Your task to perform on an android device: turn off location Image 0: 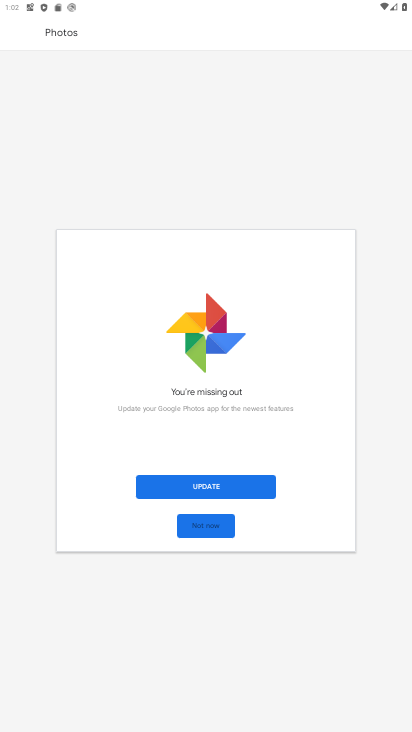
Step 0: press home button
Your task to perform on an android device: turn off location Image 1: 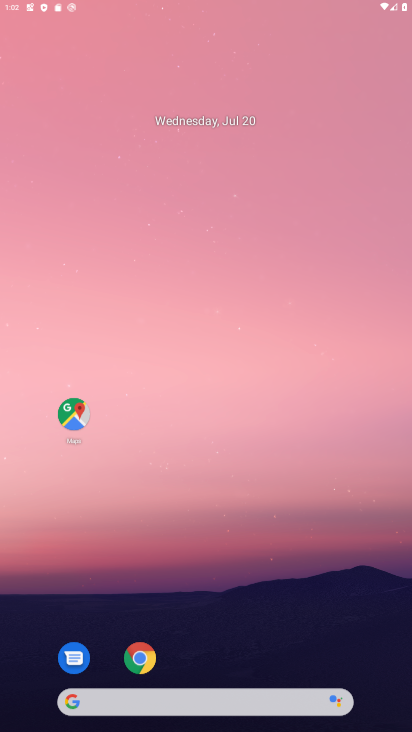
Step 1: drag from (372, 671) to (253, 85)
Your task to perform on an android device: turn off location Image 2: 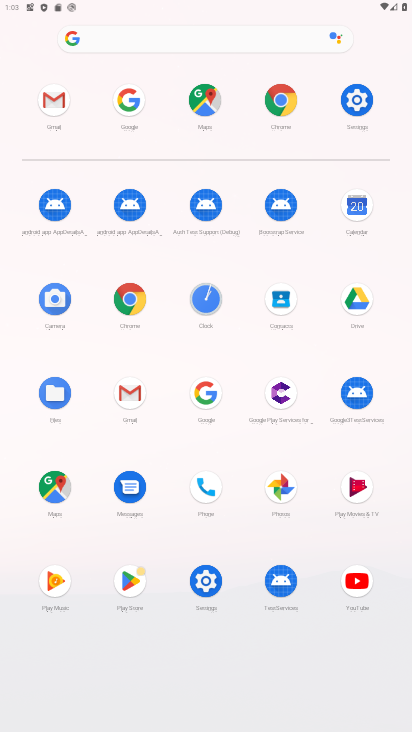
Step 2: click (196, 592)
Your task to perform on an android device: turn off location Image 3: 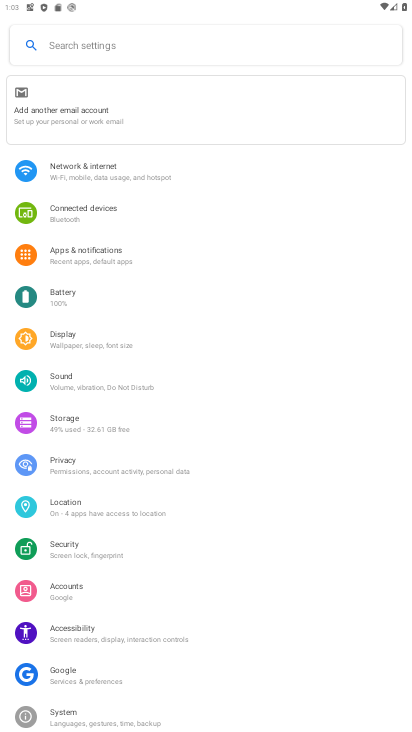
Step 3: click (62, 501)
Your task to perform on an android device: turn off location Image 4: 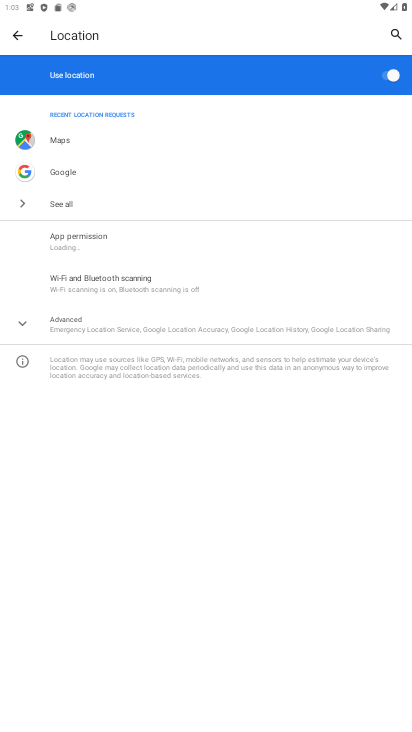
Step 4: click (387, 73)
Your task to perform on an android device: turn off location Image 5: 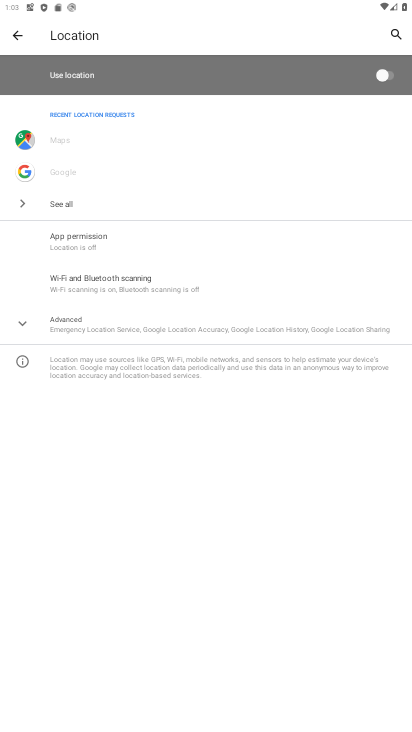
Step 5: task complete